Your task to perform on an android device: empty trash in google photos Image 0: 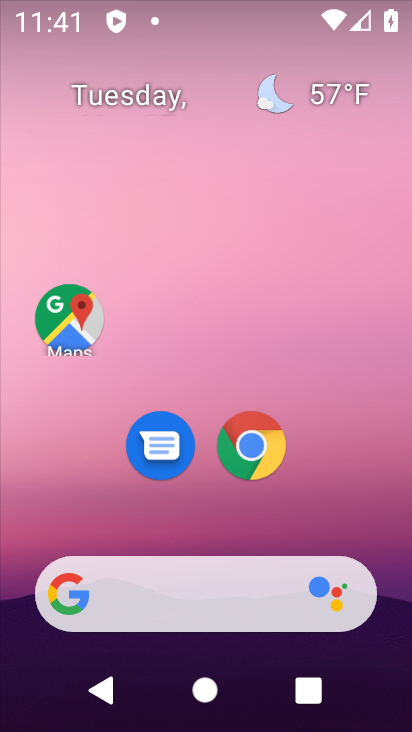
Step 0: drag from (372, 541) to (356, 168)
Your task to perform on an android device: empty trash in google photos Image 1: 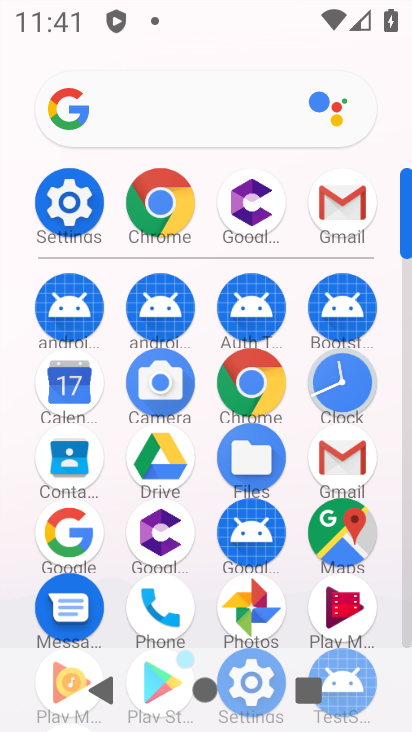
Step 1: click (249, 612)
Your task to perform on an android device: empty trash in google photos Image 2: 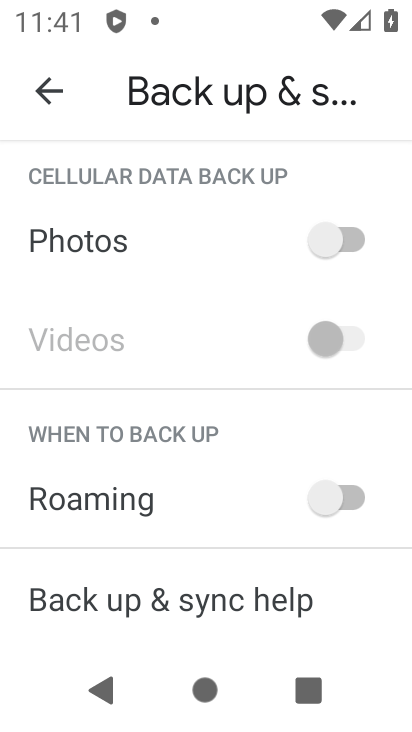
Step 2: click (57, 88)
Your task to perform on an android device: empty trash in google photos Image 3: 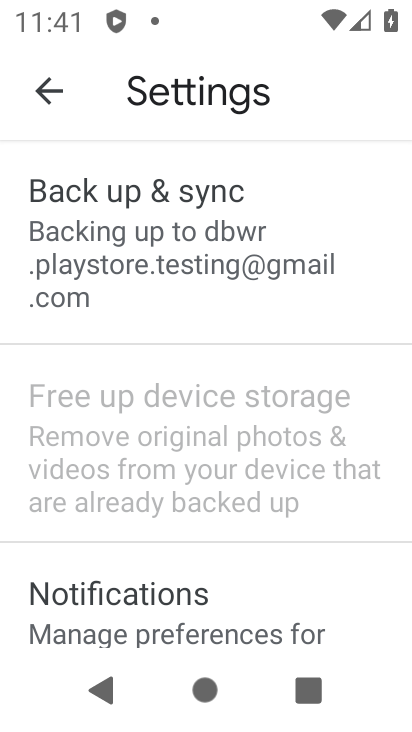
Step 3: click (55, 81)
Your task to perform on an android device: empty trash in google photos Image 4: 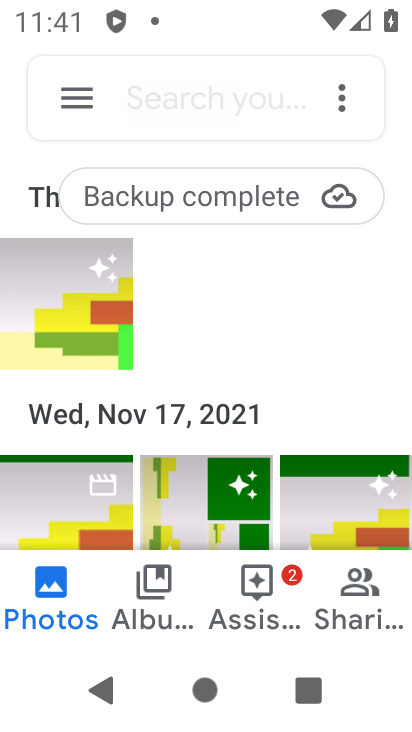
Step 4: click (77, 93)
Your task to perform on an android device: empty trash in google photos Image 5: 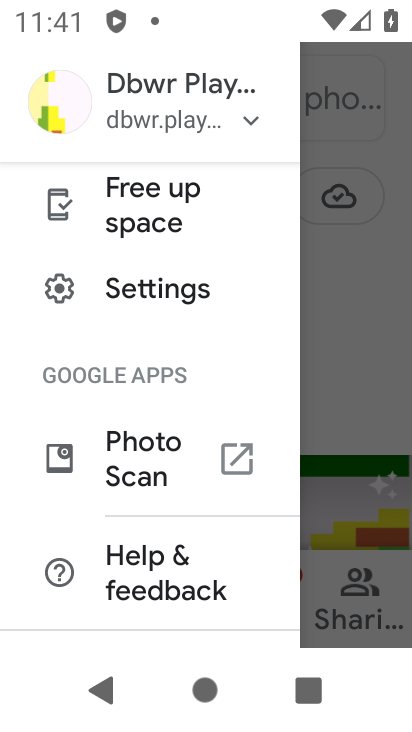
Step 5: drag from (189, 335) to (197, 509)
Your task to perform on an android device: empty trash in google photos Image 6: 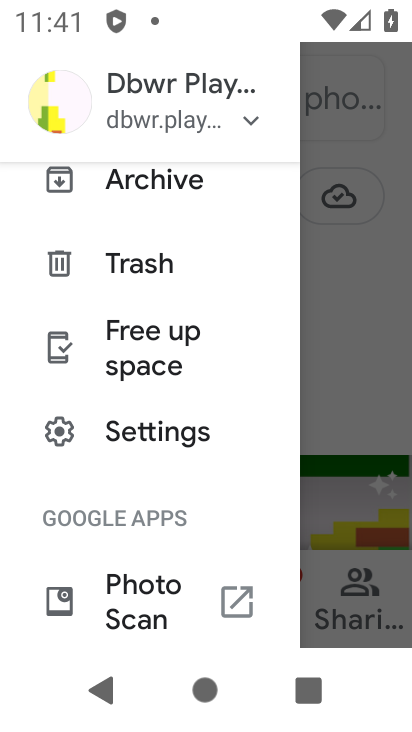
Step 6: drag from (224, 247) to (202, 460)
Your task to perform on an android device: empty trash in google photos Image 7: 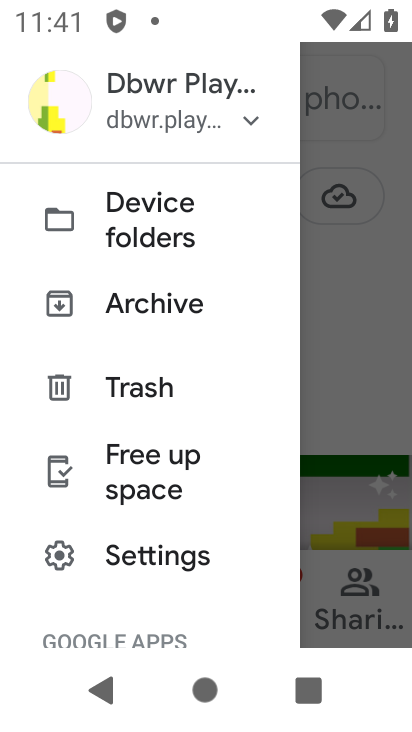
Step 7: drag from (239, 231) to (223, 426)
Your task to perform on an android device: empty trash in google photos Image 8: 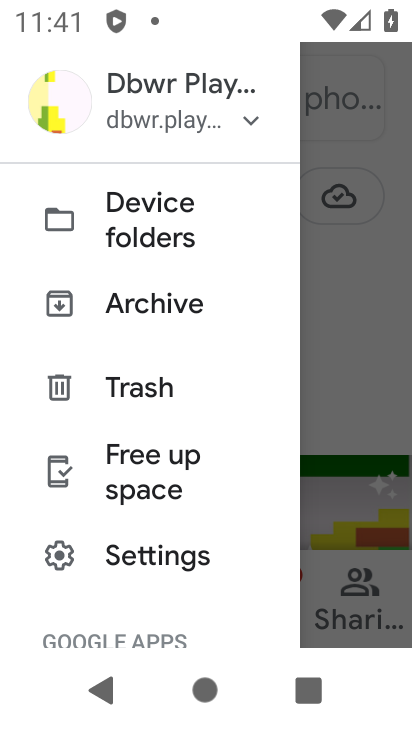
Step 8: click (151, 397)
Your task to perform on an android device: empty trash in google photos Image 9: 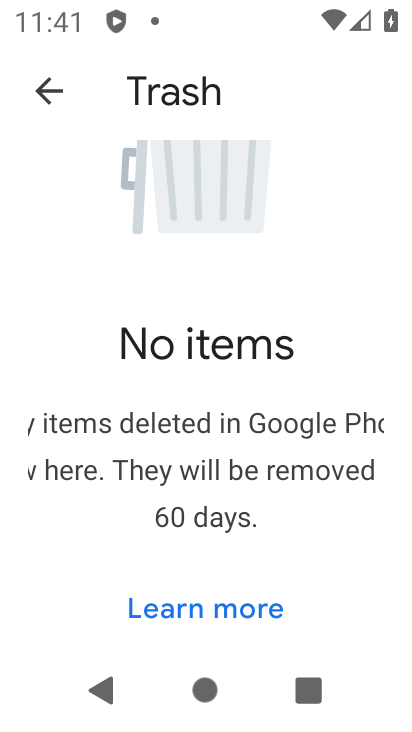
Step 9: task complete